Your task to perform on an android device: turn on priority inbox in the gmail app Image 0: 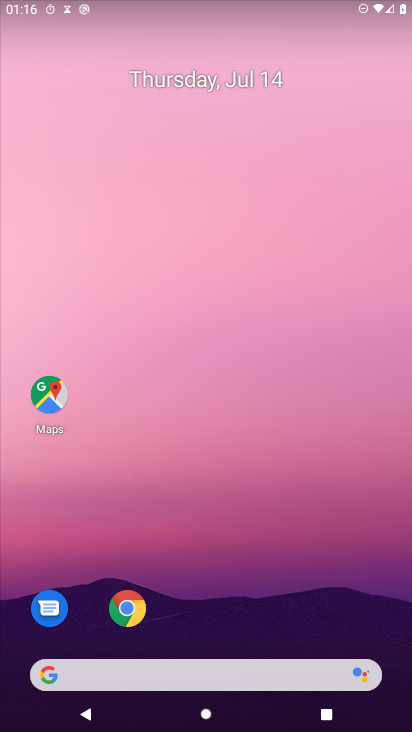
Step 0: press home button
Your task to perform on an android device: turn on priority inbox in the gmail app Image 1: 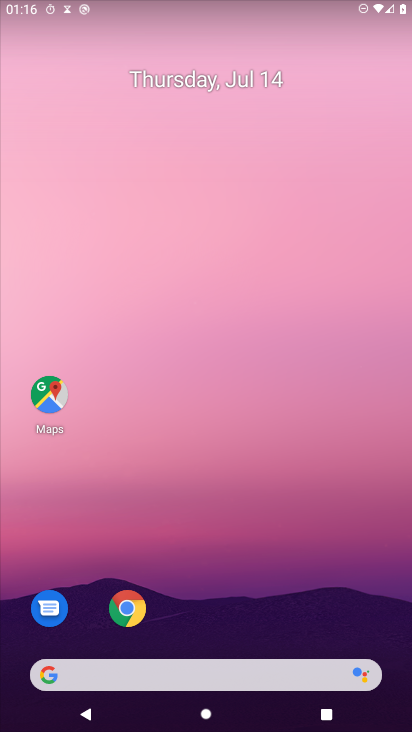
Step 1: drag from (314, 471) to (390, 96)
Your task to perform on an android device: turn on priority inbox in the gmail app Image 2: 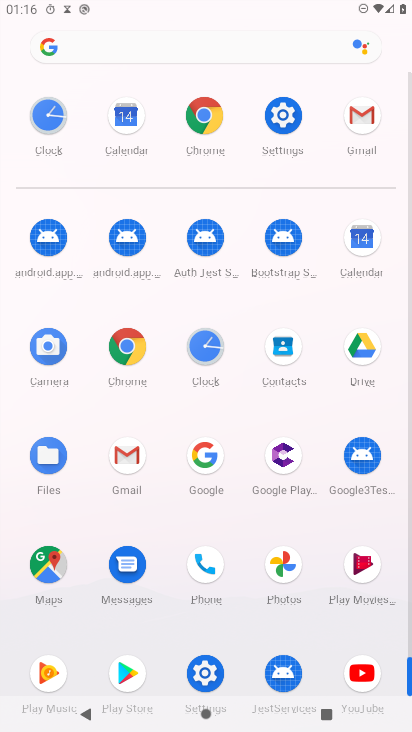
Step 2: click (354, 122)
Your task to perform on an android device: turn on priority inbox in the gmail app Image 3: 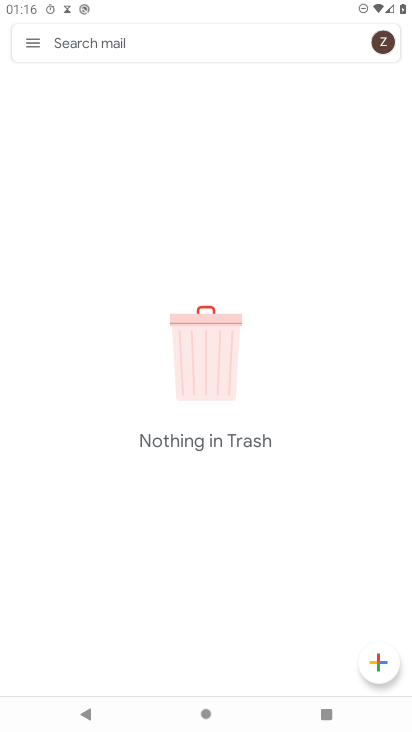
Step 3: click (34, 39)
Your task to perform on an android device: turn on priority inbox in the gmail app Image 4: 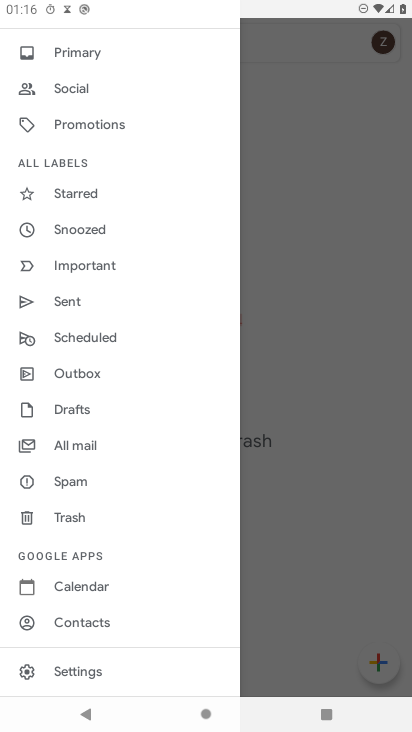
Step 4: click (102, 668)
Your task to perform on an android device: turn on priority inbox in the gmail app Image 5: 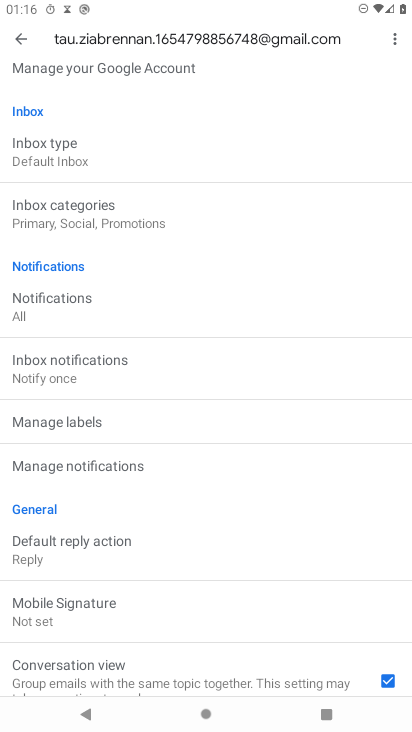
Step 5: click (62, 146)
Your task to perform on an android device: turn on priority inbox in the gmail app Image 6: 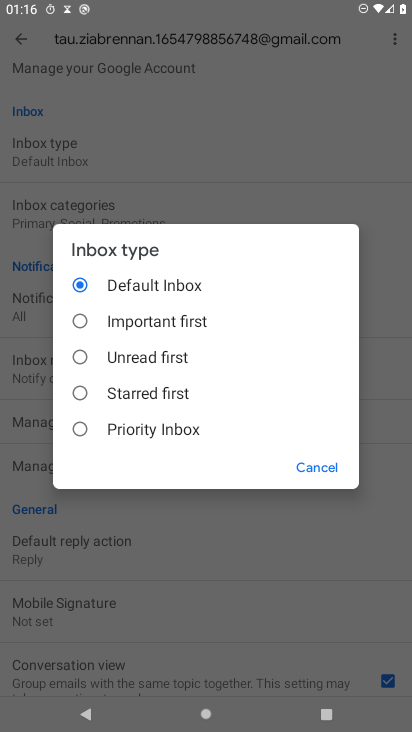
Step 6: click (83, 427)
Your task to perform on an android device: turn on priority inbox in the gmail app Image 7: 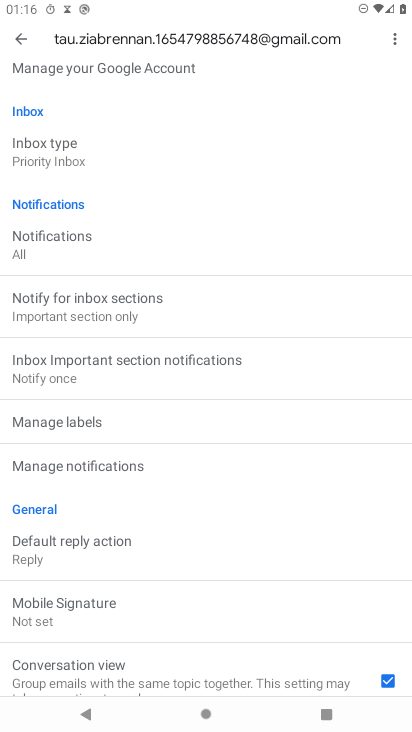
Step 7: task complete